Your task to perform on an android device: change the clock display to analog Image 0: 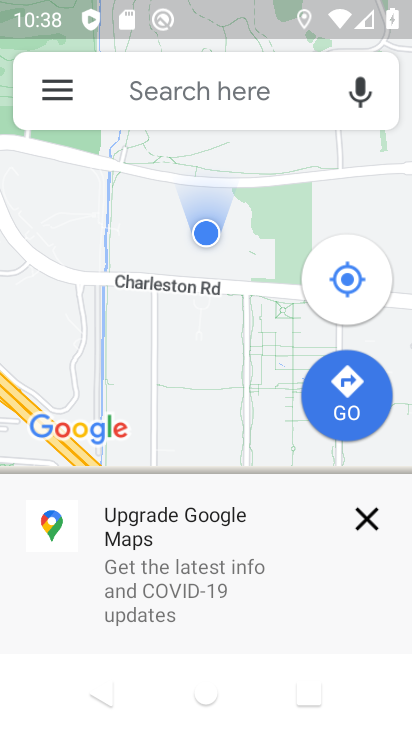
Step 0: press home button
Your task to perform on an android device: change the clock display to analog Image 1: 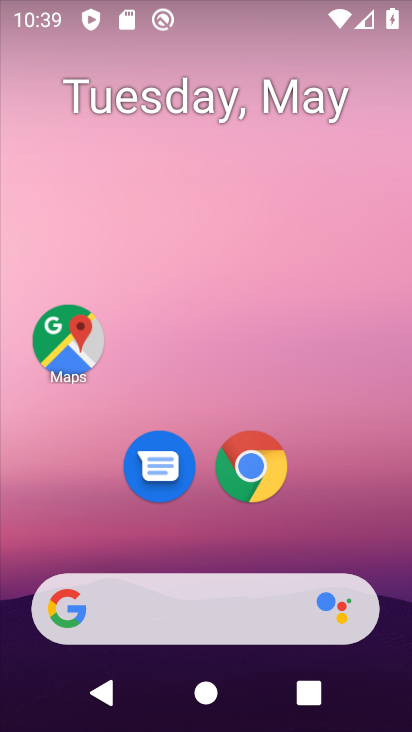
Step 1: drag from (397, 587) to (287, 109)
Your task to perform on an android device: change the clock display to analog Image 2: 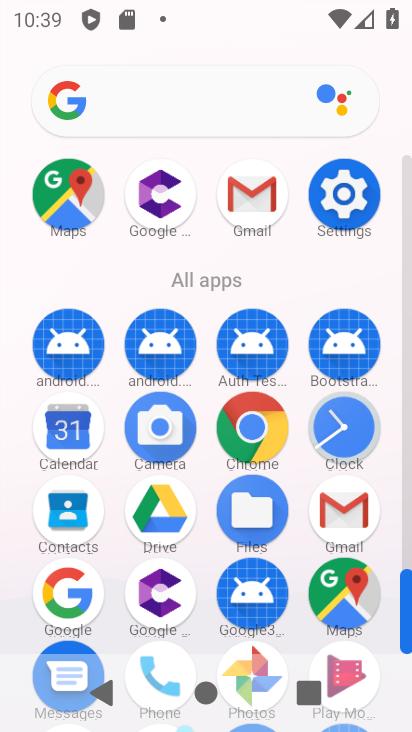
Step 2: click (359, 437)
Your task to perform on an android device: change the clock display to analog Image 3: 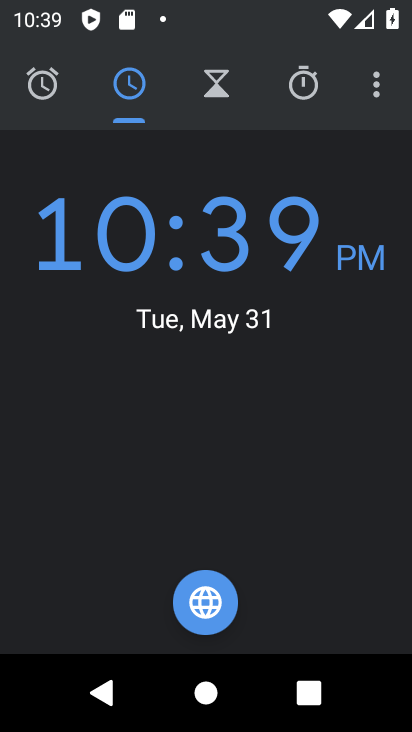
Step 3: click (374, 123)
Your task to perform on an android device: change the clock display to analog Image 4: 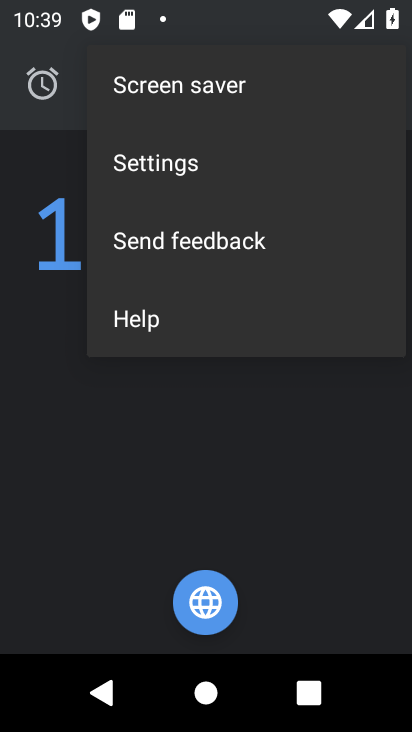
Step 4: click (275, 161)
Your task to perform on an android device: change the clock display to analog Image 5: 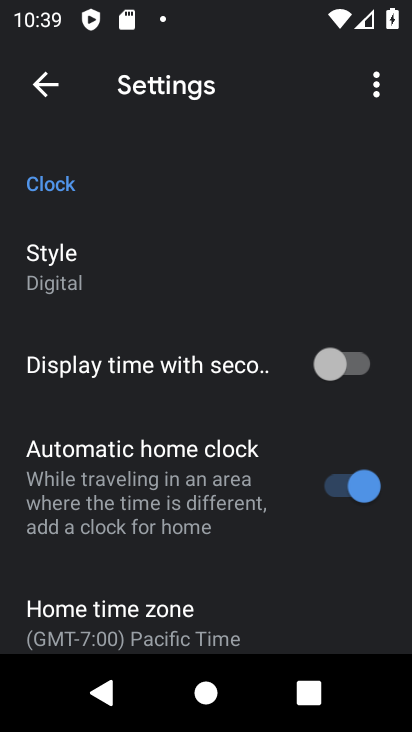
Step 5: click (157, 273)
Your task to perform on an android device: change the clock display to analog Image 6: 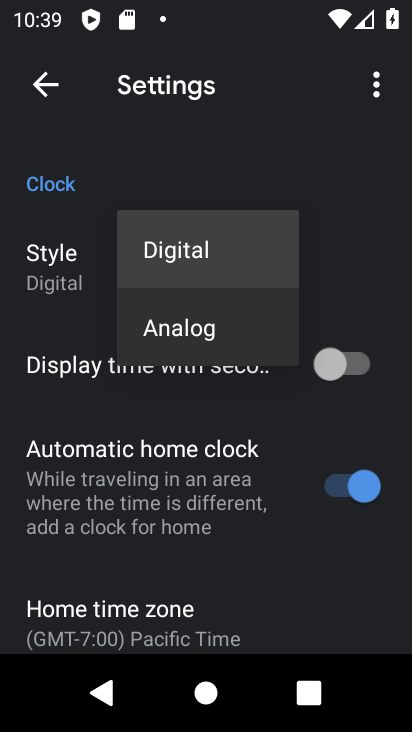
Step 6: click (180, 317)
Your task to perform on an android device: change the clock display to analog Image 7: 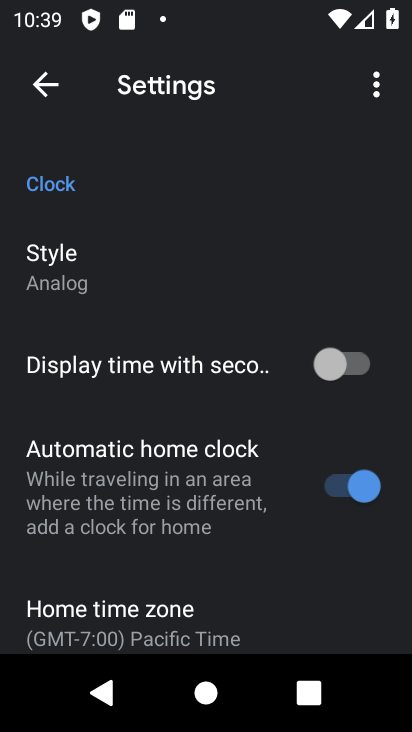
Step 7: task complete